Your task to perform on an android device: What is the recent news? Image 0: 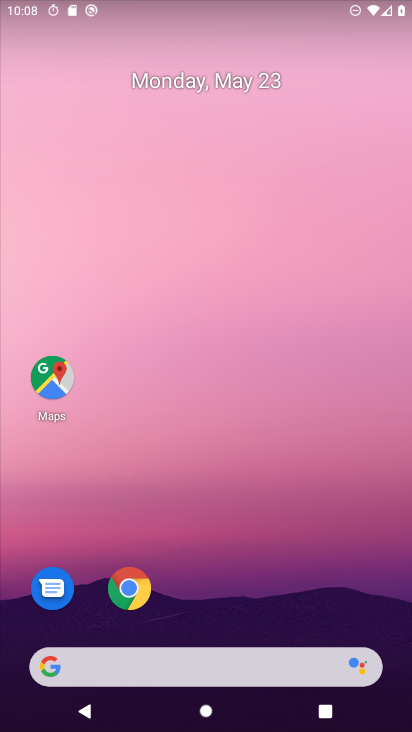
Step 0: drag from (0, 225) to (362, 196)
Your task to perform on an android device: What is the recent news? Image 1: 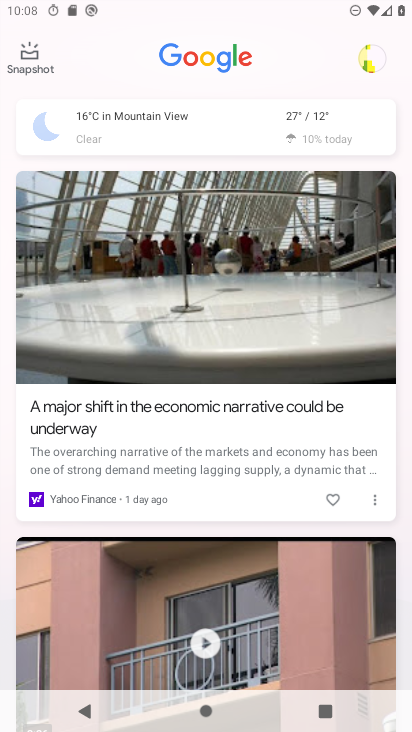
Step 1: task complete